Your task to perform on an android device: Search for sushi restaurants on Maps Image 0: 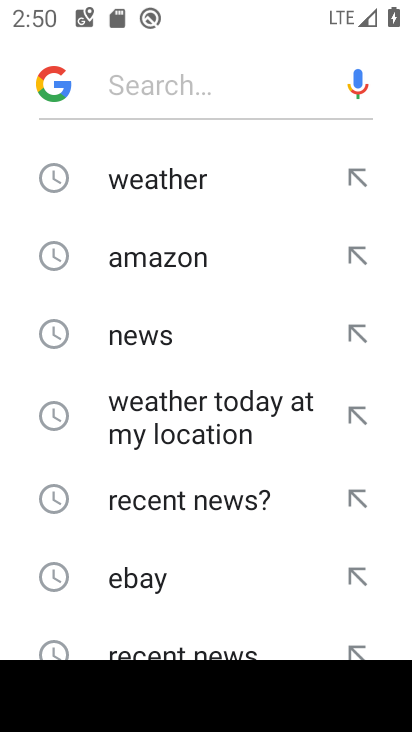
Step 0: press home button
Your task to perform on an android device: Search for sushi restaurants on Maps Image 1: 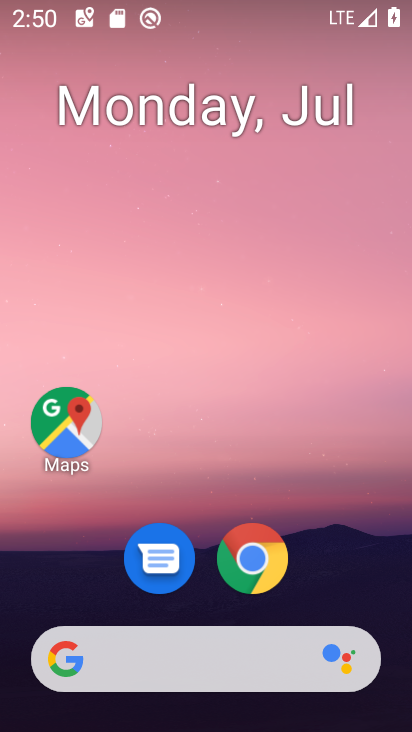
Step 1: drag from (376, 585) to (331, 97)
Your task to perform on an android device: Search for sushi restaurants on Maps Image 2: 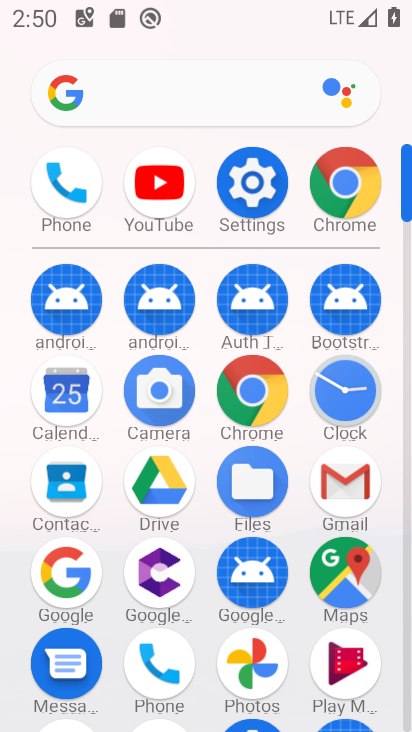
Step 2: click (348, 560)
Your task to perform on an android device: Search for sushi restaurants on Maps Image 3: 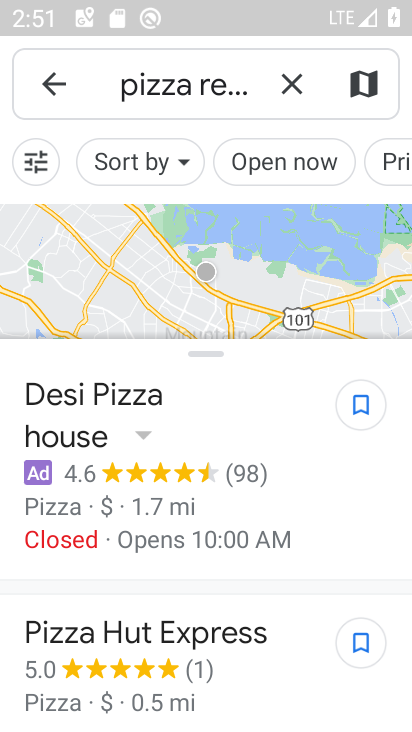
Step 3: press back button
Your task to perform on an android device: Search for sushi restaurants on Maps Image 4: 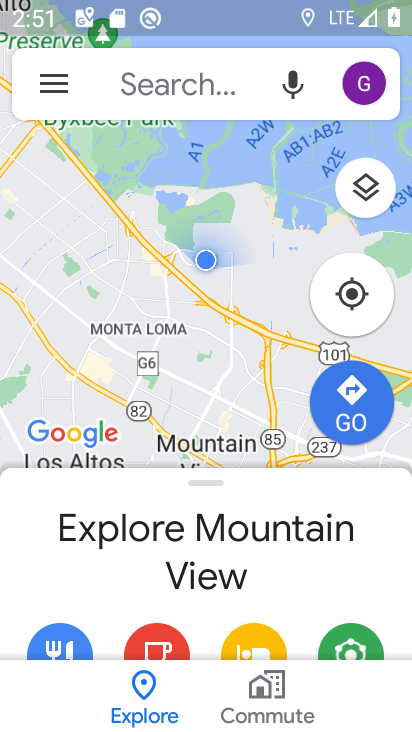
Step 4: click (215, 75)
Your task to perform on an android device: Search for sushi restaurants on Maps Image 5: 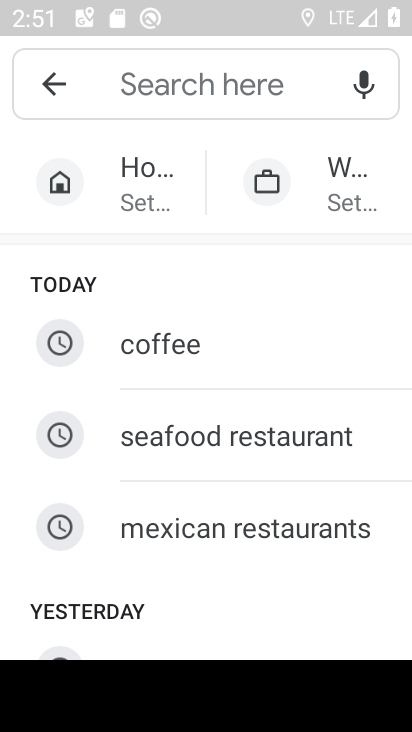
Step 5: type "sushi restaurants"
Your task to perform on an android device: Search for sushi restaurants on Maps Image 6: 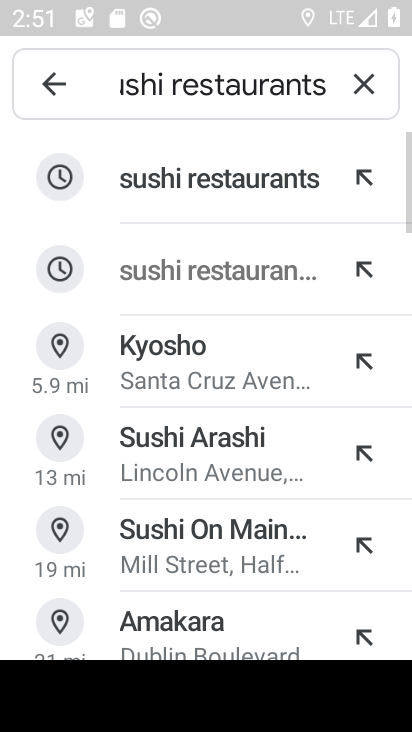
Step 6: click (270, 182)
Your task to perform on an android device: Search for sushi restaurants on Maps Image 7: 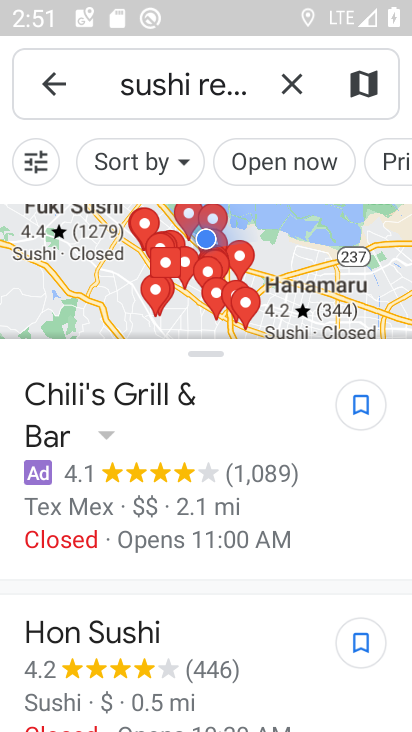
Step 7: task complete